Your task to perform on an android device: open chrome and create a bookmark for the current page Image 0: 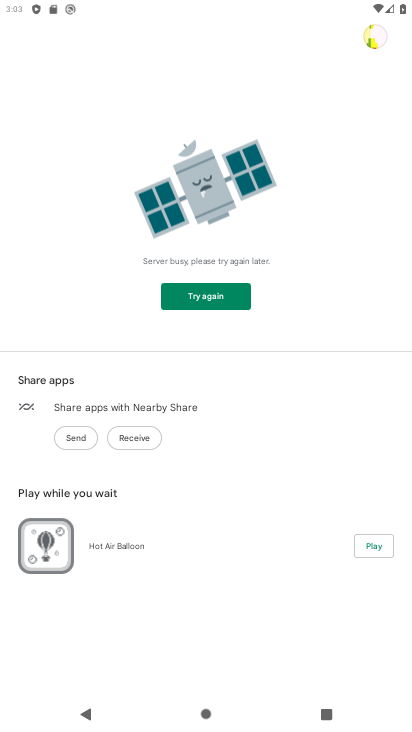
Step 0: press home button
Your task to perform on an android device: open chrome and create a bookmark for the current page Image 1: 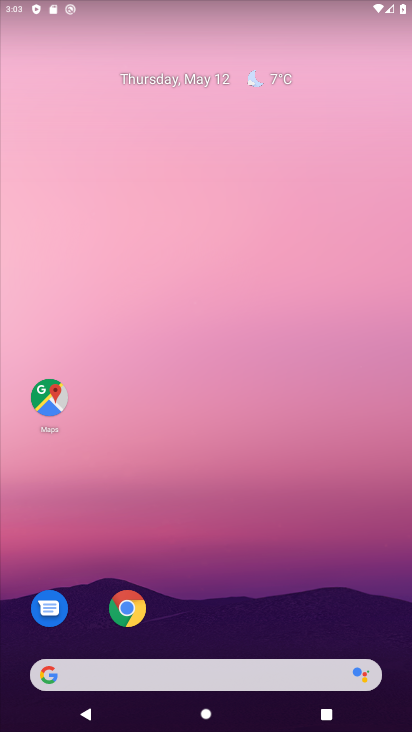
Step 1: click (136, 622)
Your task to perform on an android device: open chrome and create a bookmark for the current page Image 2: 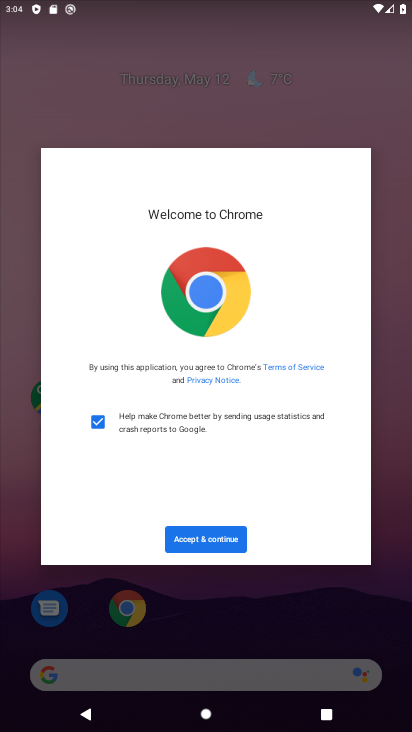
Step 2: click (217, 531)
Your task to perform on an android device: open chrome and create a bookmark for the current page Image 3: 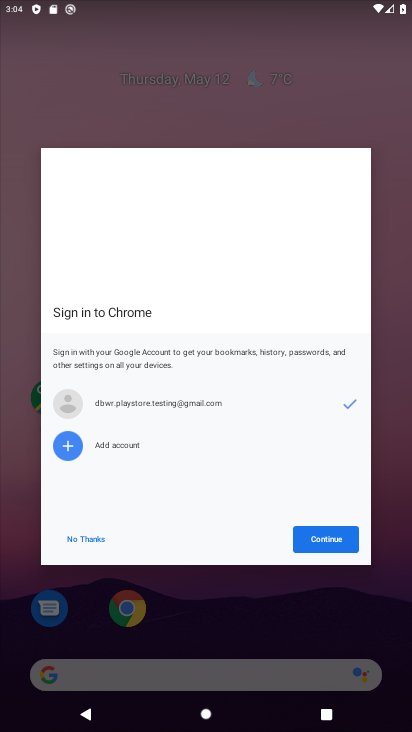
Step 3: click (310, 545)
Your task to perform on an android device: open chrome and create a bookmark for the current page Image 4: 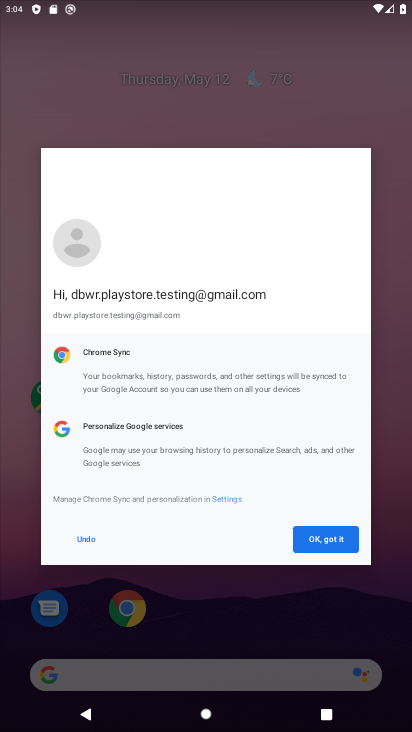
Step 4: click (309, 545)
Your task to perform on an android device: open chrome and create a bookmark for the current page Image 5: 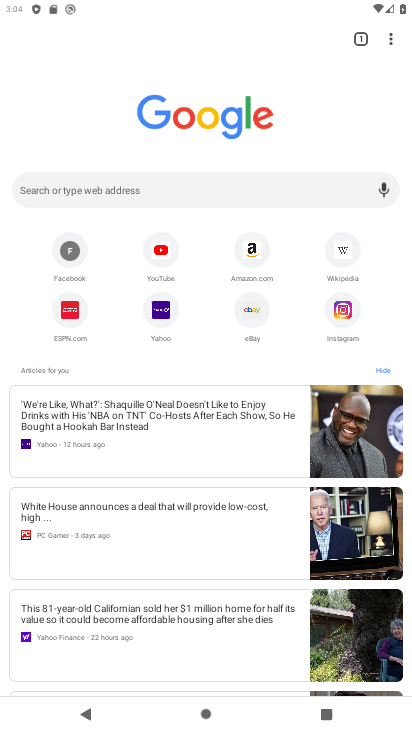
Step 5: click (188, 185)
Your task to perform on an android device: open chrome and create a bookmark for the current page Image 6: 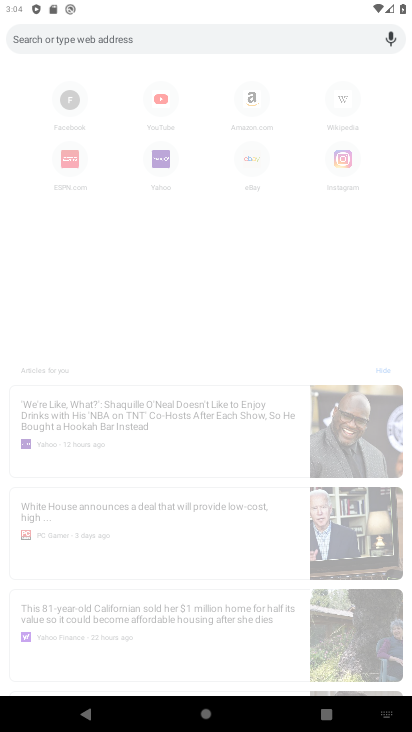
Step 6: type "chowmein vs noodles"
Your task to perform on an android device: open chrome and create a bookmark for the current page Image 7: 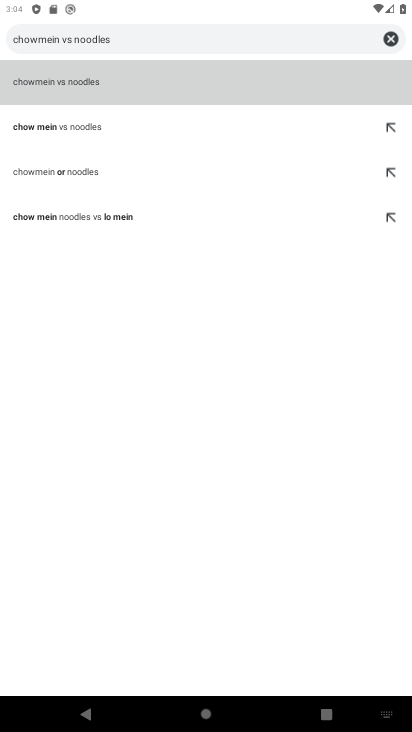
Step 7: click (211, 133)
Your task to perform on an android device: open chrome and create a bookmark for the current page Image 8: 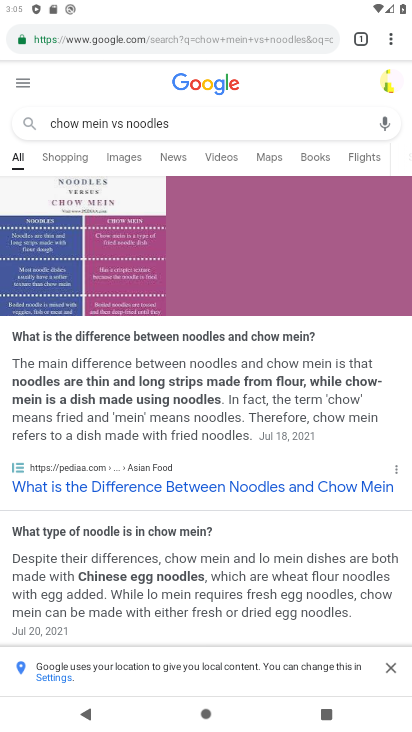
Step 8: click (252, 339)
Your task to perform on an android device: open chrome and create a bookmark for the current page Image 9: 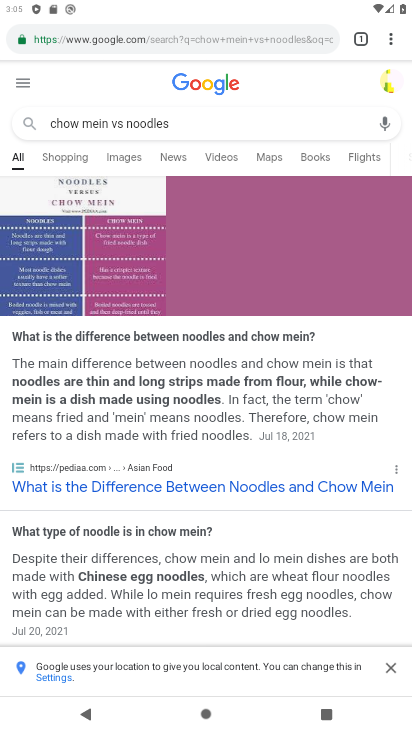
Step 9: click (226, 483)
Your task to perform on an android device: open chrome and create a bookmark for the current page Image 10: 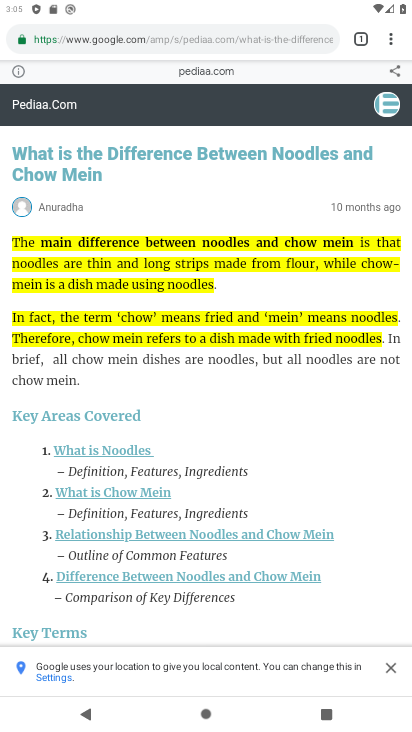
Step 10: click (396, 39)
Your task to perform on an android device: open chrome and create a bookmark for the current page Image 11: 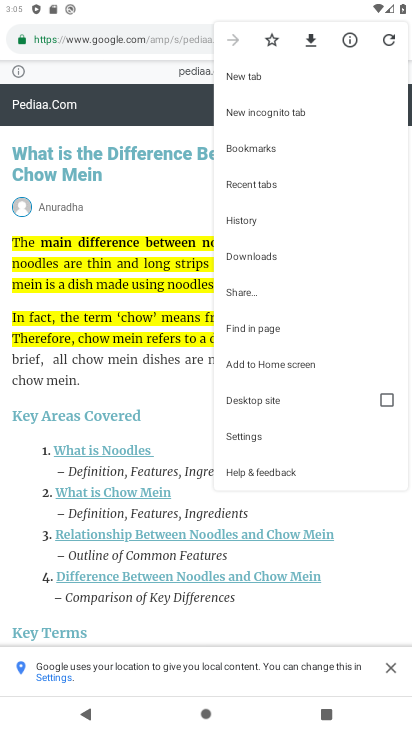
Step 11: click (275, 44)
Your task to perform on an android device: open chrome and create a bookmark for the current page Image 12: 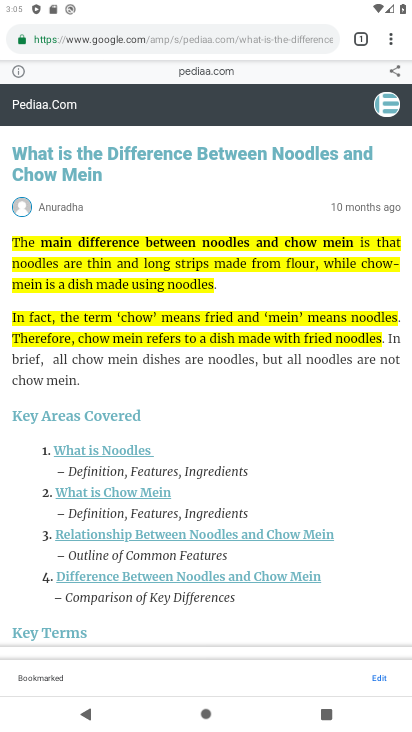
Step 12: task complete